Your task to perform on an android device: Play the last video I watched on Youtube Image 0: 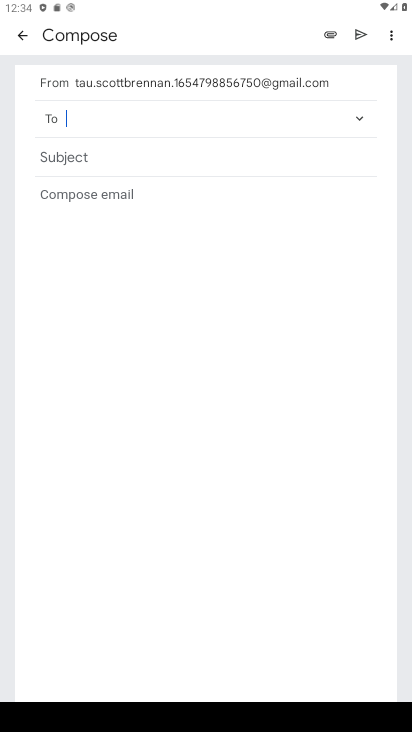
Step 0: task complete